Your task to perform on an android device: Go to Yahoo.com Image 0: 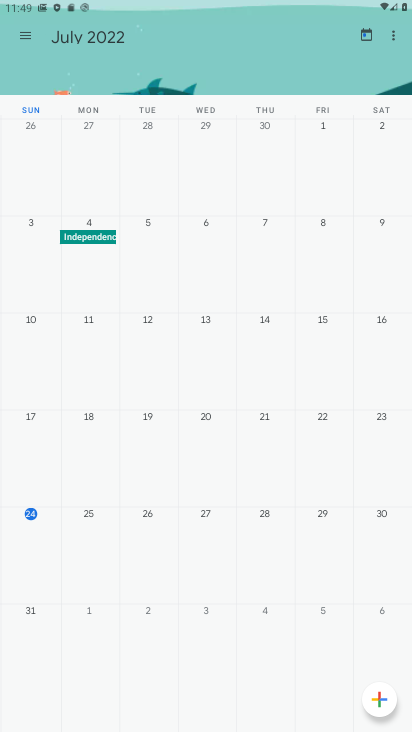
Step 0: press home button
Your task to perform on an android device: Go to Yahoo.com Image 1: 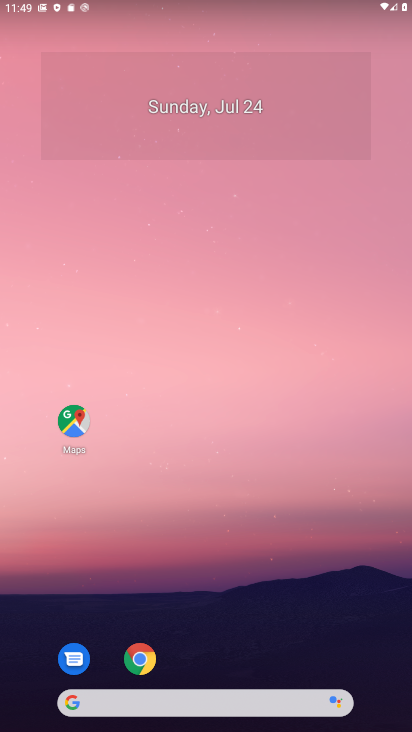
Step 1: click (143, 706)
Your task to perform on an android device: Go to Yahoo.com Image 2: 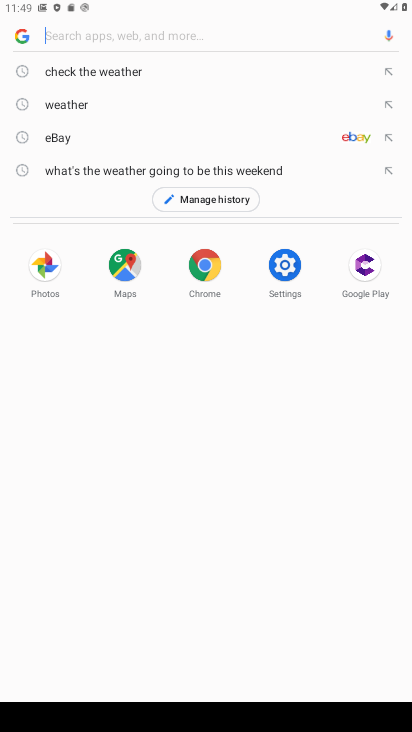
Step 2: type "Yahoo.com"
Your task to perform on an android device: Go to Yahoo.com Image 3: 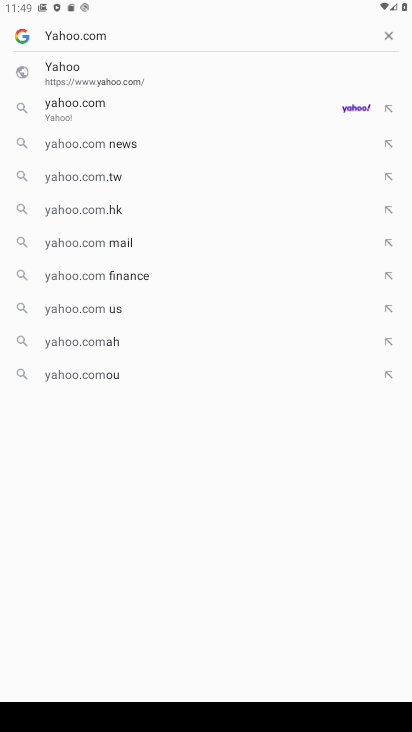
Step 3: press enter
Your task to perform on an android device: Go to Yahoo.com Image 4: 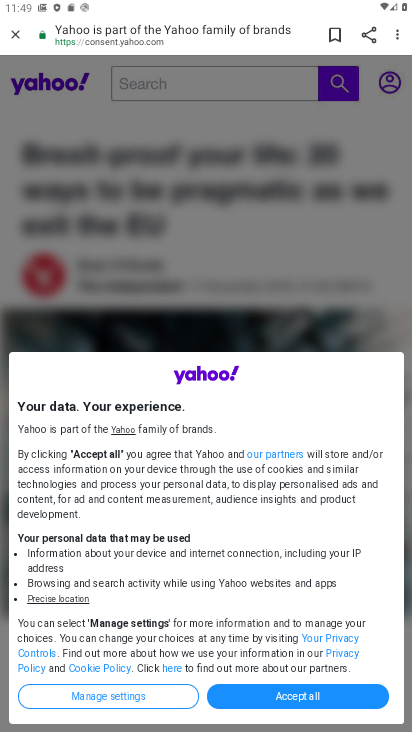
Step 4: click (295, 705)
Your task to perform on an android device: Go to Yahoo.com Image 5: 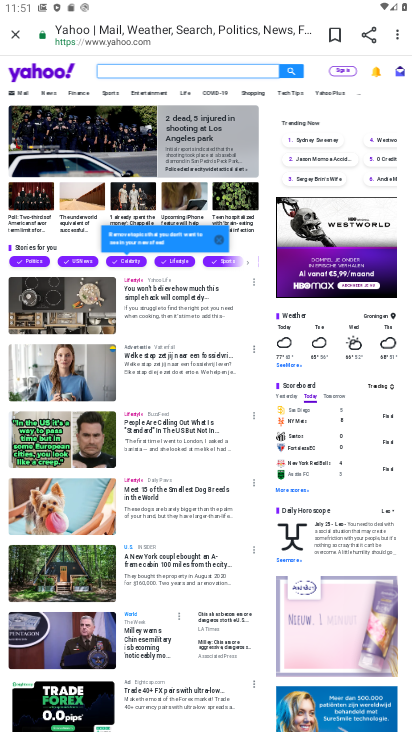
Step 5: task complete